Your task to perform on an android device: Open Chrome and go to settings Image 0: 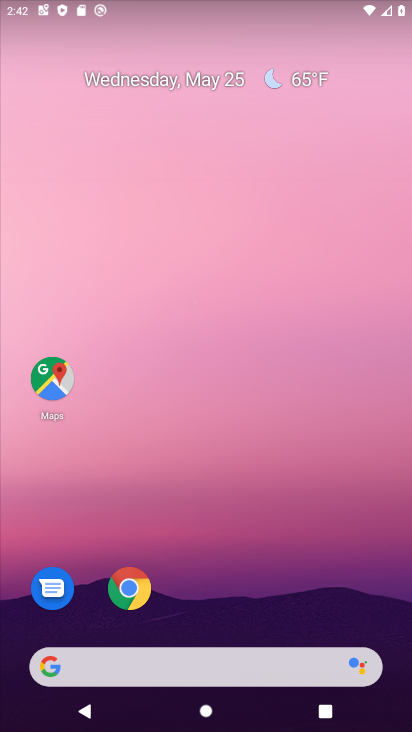
Step 0: click (127, 583)
Your task to perform on an android device: Open Chrome and go to settings Image 1: 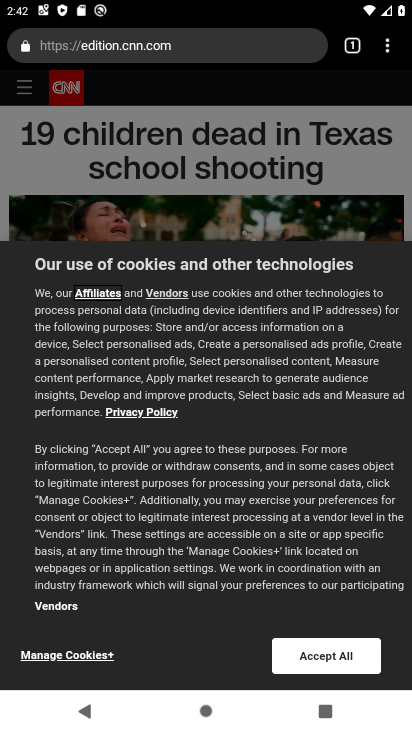
Step 1: press home button
Your task to perform on an android device: Open Chrome and go to settings Image 2: 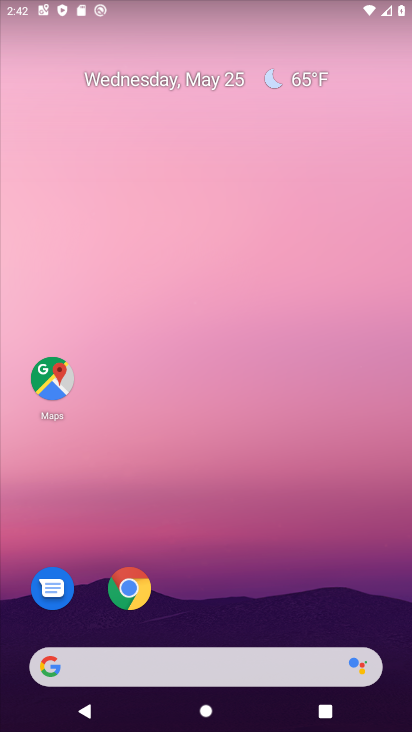
Step 2: click (129, 585)
Your task to perform on an android device: Open Chrome and go to settings Image 3: 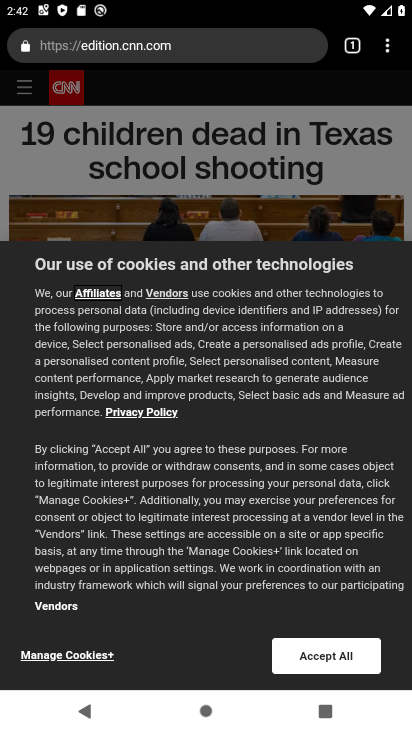
Step 3: click (389, 43)
Your task to perform on an android device: Open Chrome and go to settings Image 4: 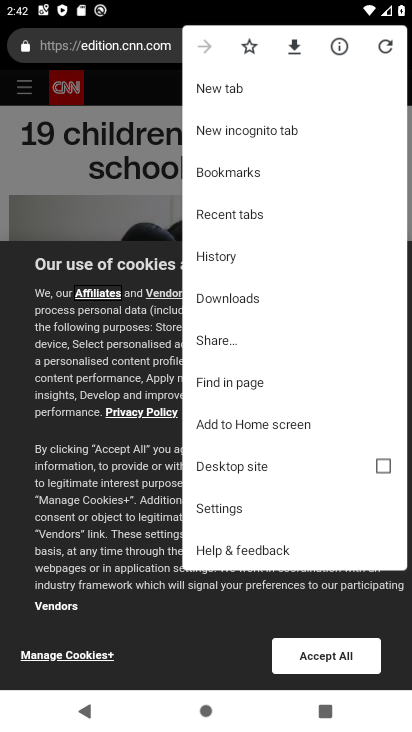
Step 4: click (238, 504)
Your task to perform on an android device: Open Chrome and go to settings Image 5: 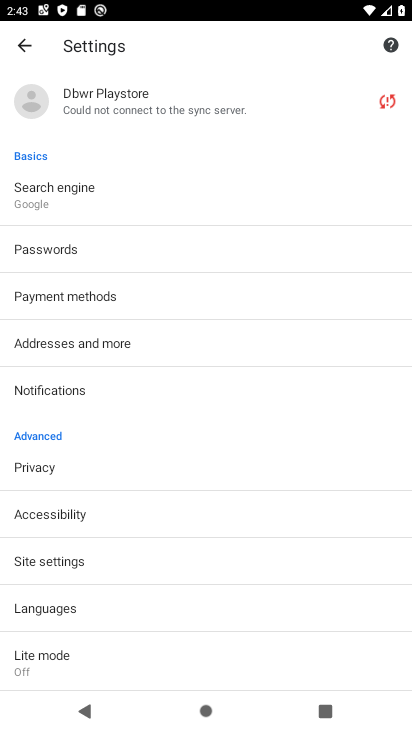
Step 5: task complete